Your task to perform on an android device: Open Amazon Image 0: 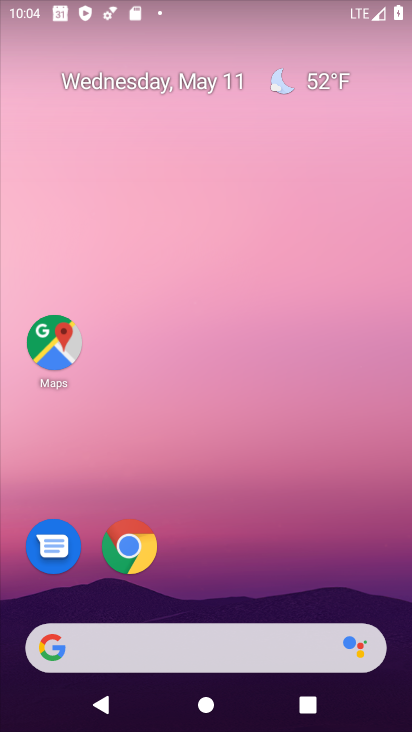
Step 0: click (139, 557)
Your task to perform on an android device: Open Amazon Image 1: 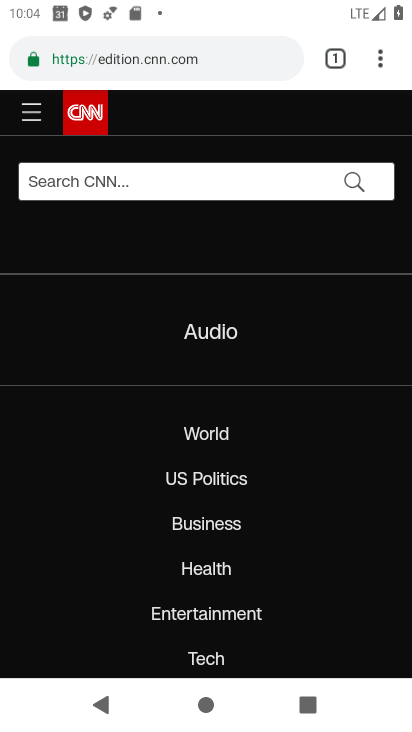
Step 1: click (148, 70)
Your task to perform on an android device: Open Amazon Image 2: 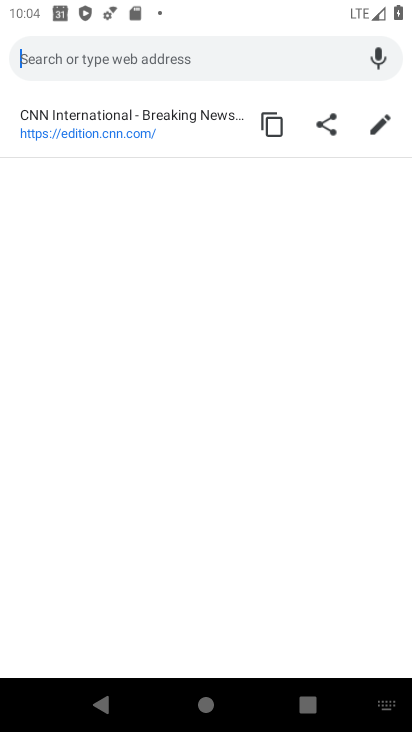
Step 2: type "amazon"
Your task to perform on an android device: Open Amazon Image 3: 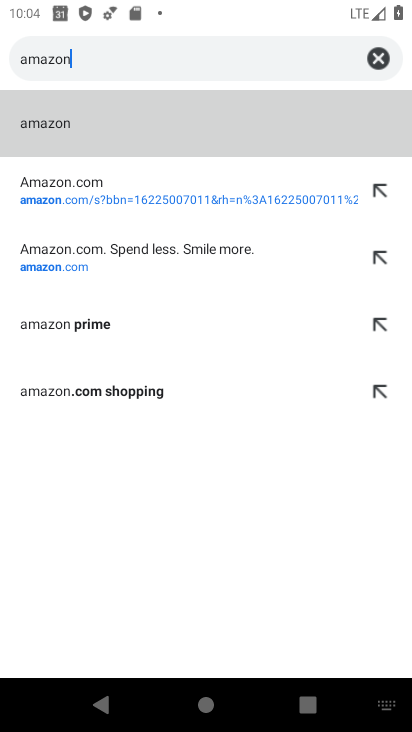
Step 3: click (94, 255)
Your task to perform on an android device: Open Amazon Image 4: 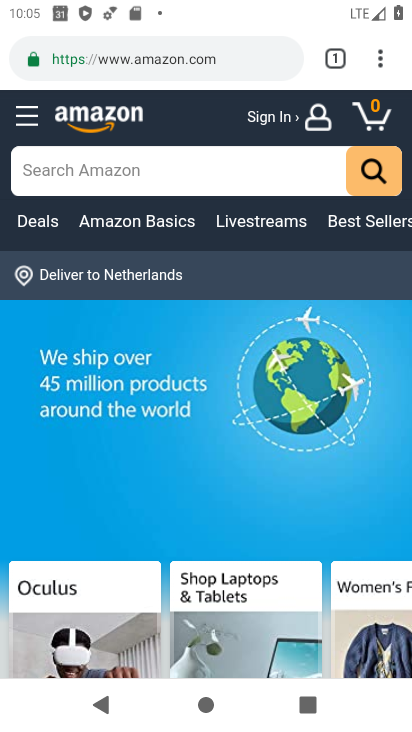
Step 4: task complete